Your task to perform on an android device: empty trash in the gmail app Image 0: 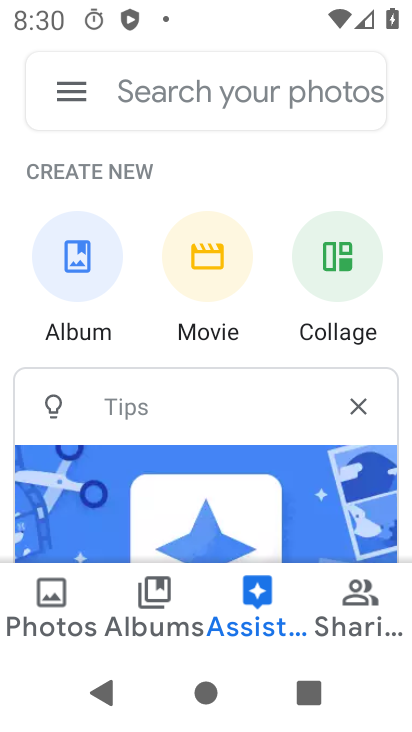
Step 0: press home button
Your task to perform on an android device: empty trash in the gmail app Image 1: 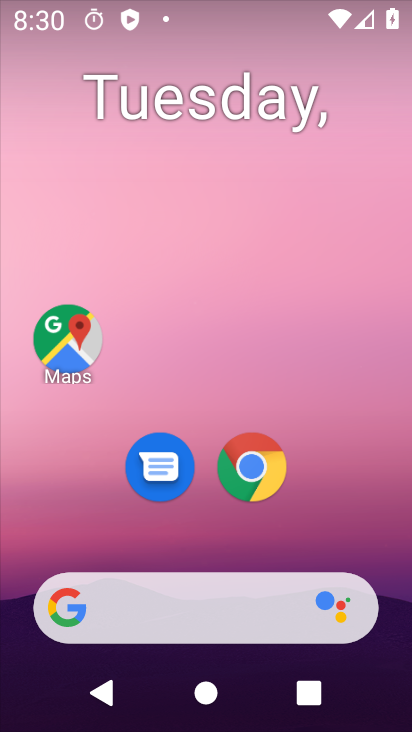
Step 1: drag from (348, 533) to (334, 163)
Your task to perform on an android device: empty trash in the gmail app Image 2: 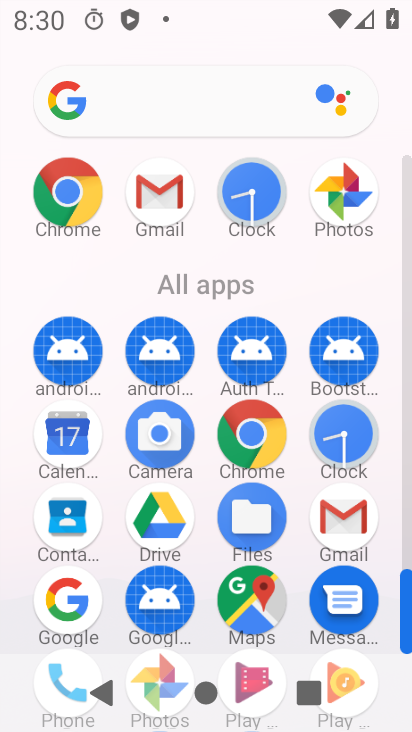
Step 2: click (165, 208)
Your task to perform on an android device: empty trash in the gmail app Image 3: 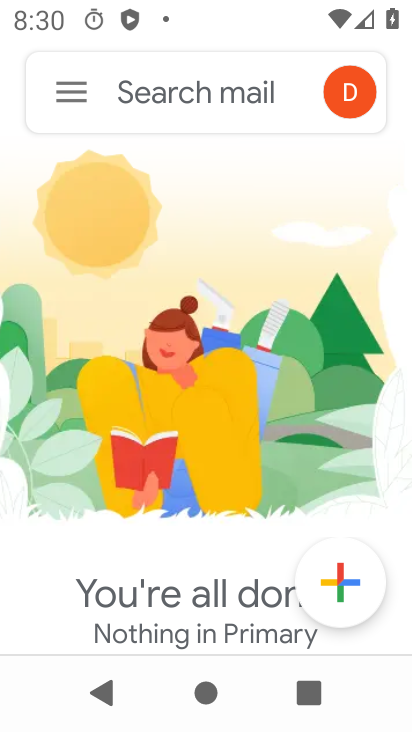
Step 3: click (76, 79)
Your task to perform on an android device: empty trash in the gmail app Image 4: 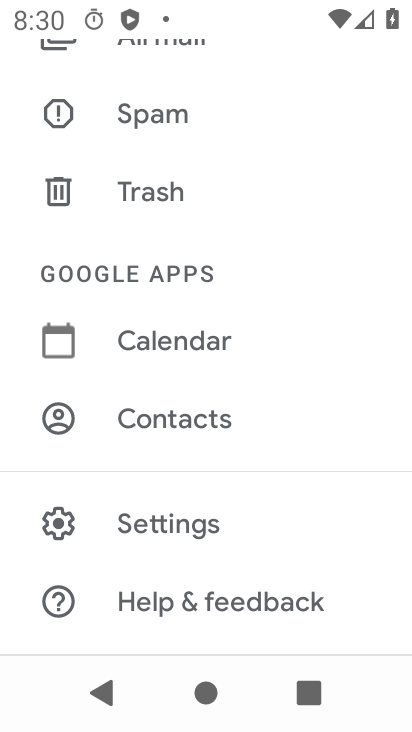
Step 4: click (219, 193)
Your task to perform on an android device: empty trash in the gmail app Image 5: 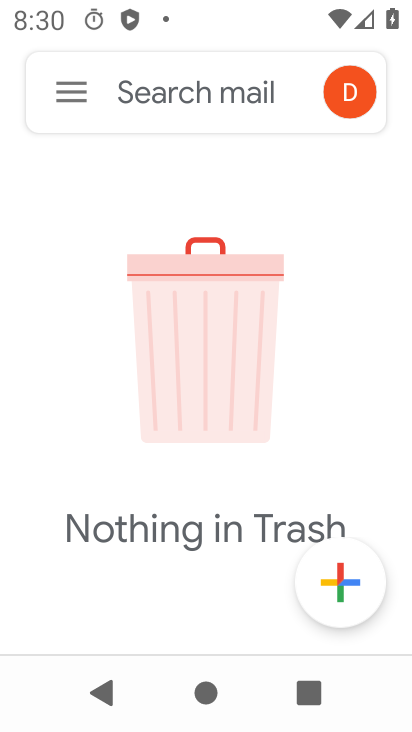
Step 5: task complete